Your task to perform on an android device: set an alarm Image 0: 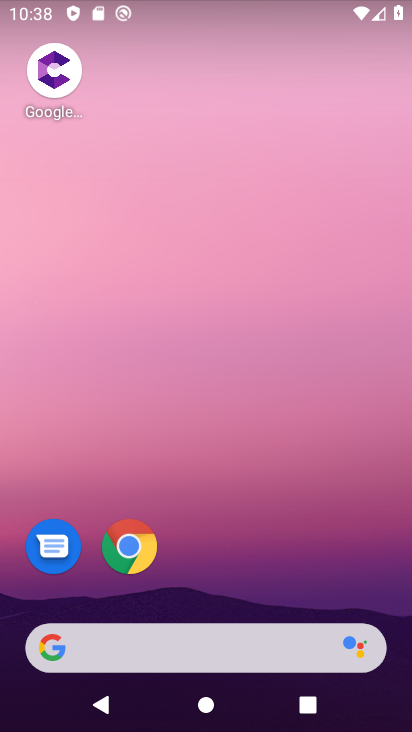
Step 0: drag from (174, 726) to (250, 65)
Your task to perform on an android device: set an alarm Image 1: 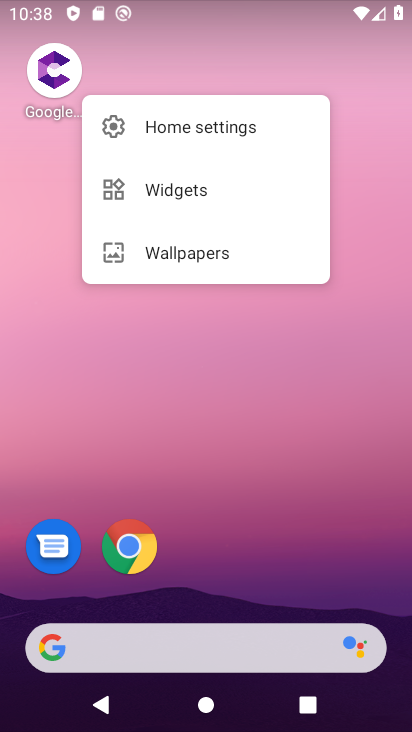
Step 1: drag from (167, 724) to (124, 119)
Your task to perform on an android device: set an alarm Image 2: 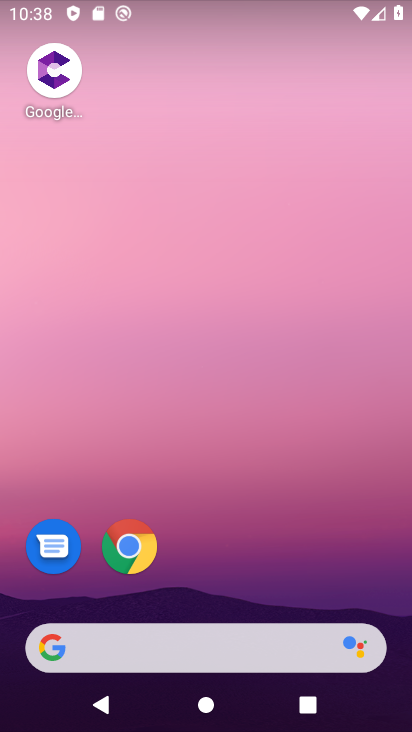
Step 2: press home button
Your task to perform on an android device: set an alarm Image 3: 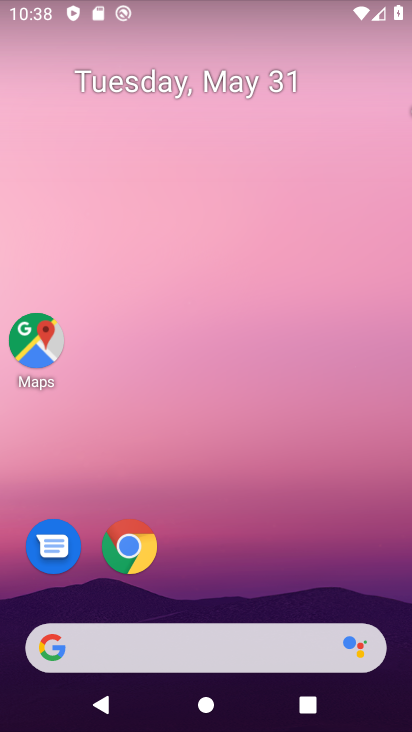
Step 3: drag from (163, 727) to (216, 4)
Your task to perform on an android device: set an alarm Image 4: 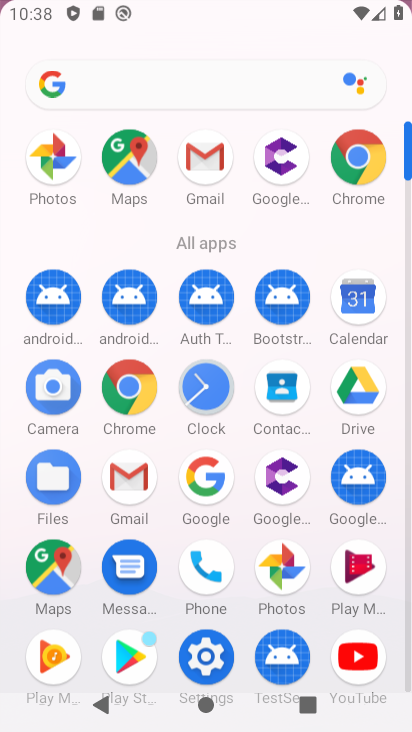
Step 4: click (140, 724)
Your task to perform on an android device: set an alarm Image 5: 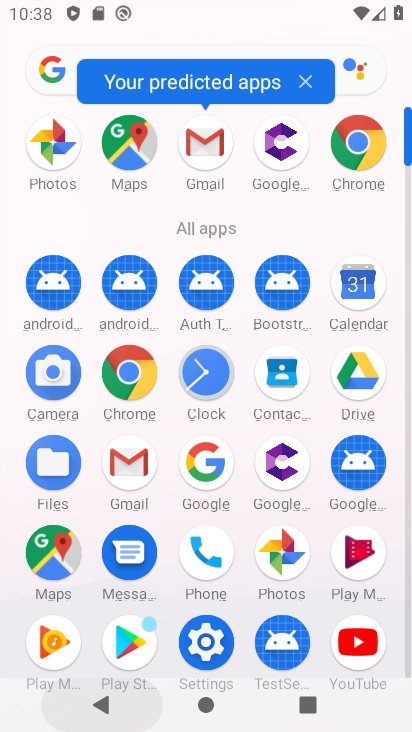
Step 5: click (226, 381)
Your task to perform on an android device: set an alarm Image 6: 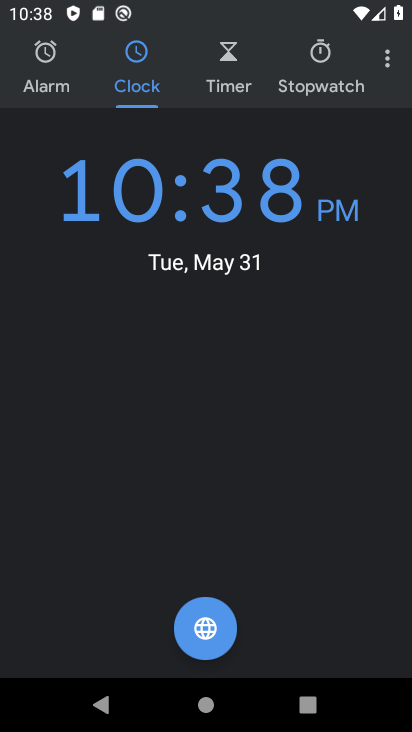
Step 6: click (56, 84)
Your task to perform on an android device: set an alarm Image 7: 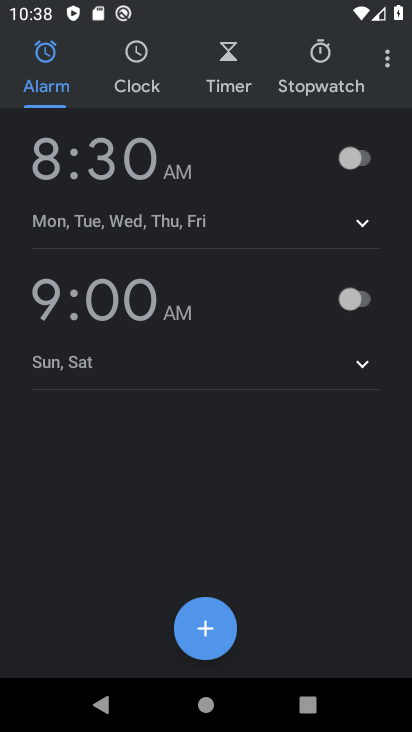
Step 7: click (355, 153)
Your task to perform on an android device: set an alarm Image 8: 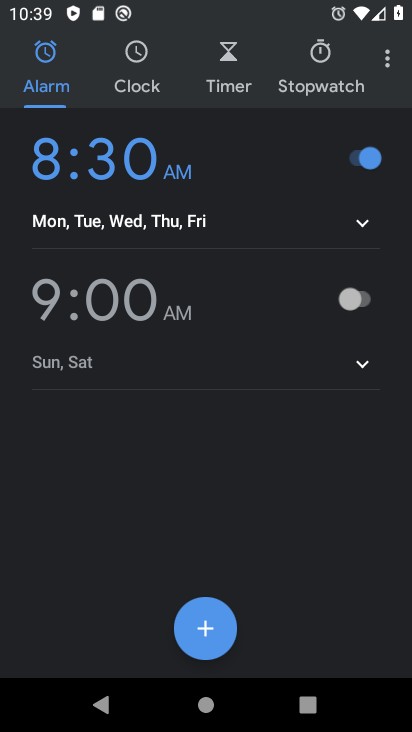
Step 8: task complete